Your task to perform on an android device: What's the weather? Image 0: 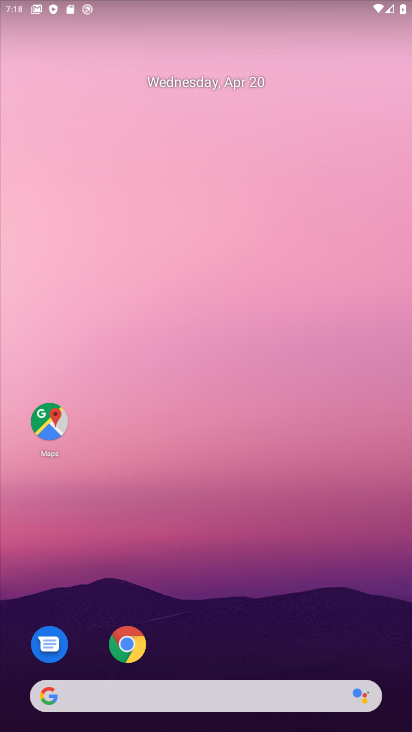
Step 0: drag from (334, 630) to (192, 80)
Your task to perform on an android device: What's the weather? Image 1: 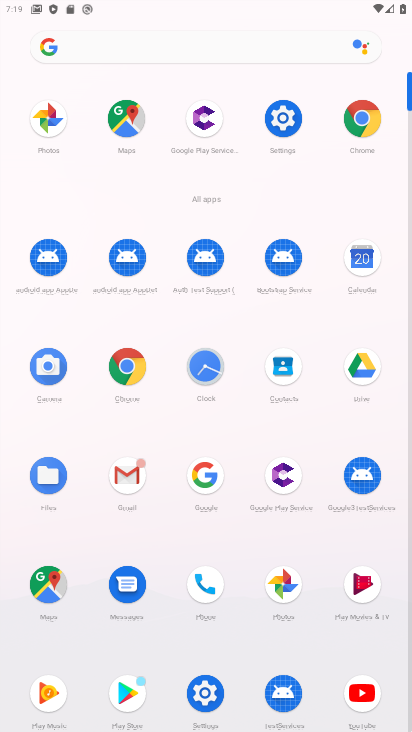
Step 1: press home button
Your task to perform on an android device: What's the weather? Image 2: 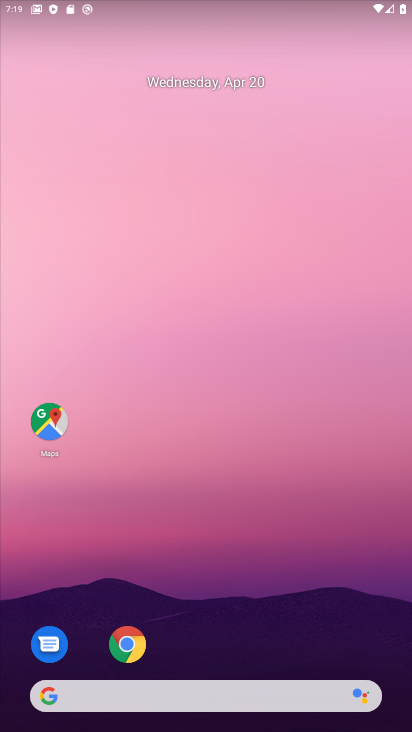
Step 2: click (195, 691)
Your task to perform on an android device: What's the weather? Image 3: 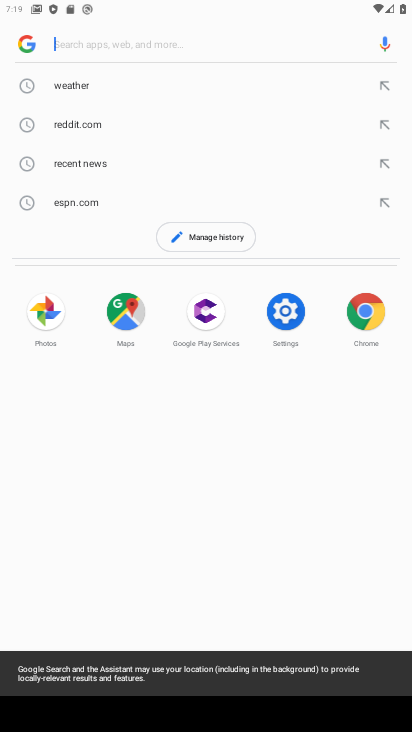
Step 3: click (80, 79)
Your task to perform on an android device: What's the weather? Image 4: 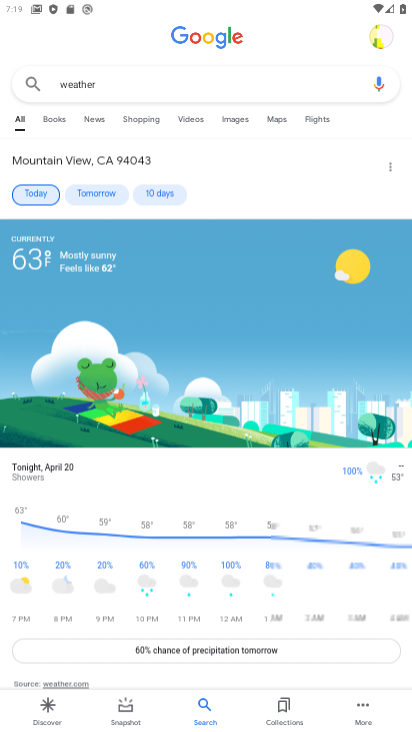
Step 4: task complete